Your task to perform on an android device: open a new tab in the chrome app Image 0: 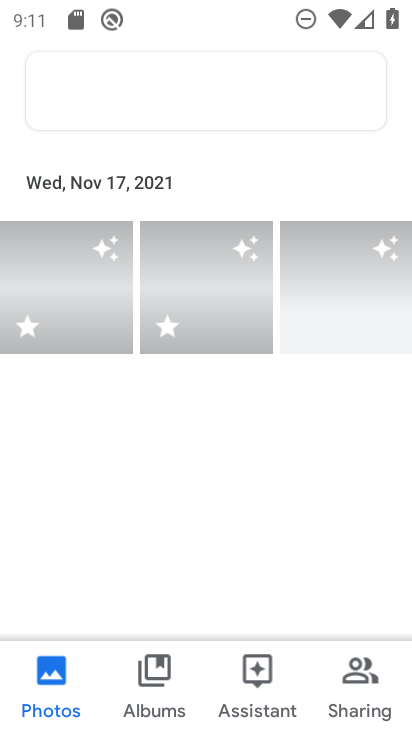
Step 0: press home button
Your task to perform on an android device: open a new tab in the chrome app Image 1: 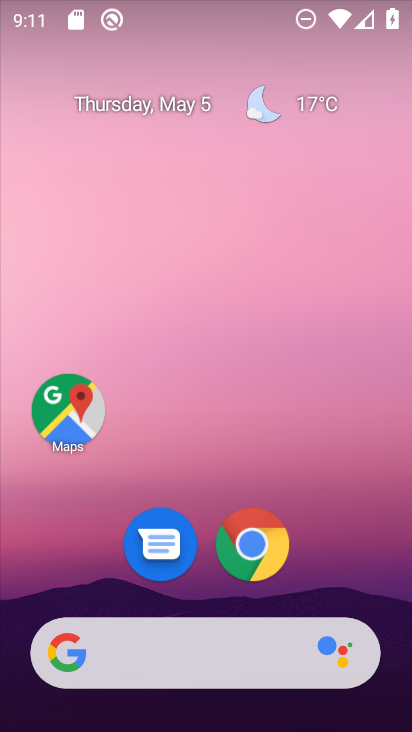
Step 1: drag from (394, 649) to (260, 71)
Your task to perform on an android device: open a new tab in the chrome app Image 2: 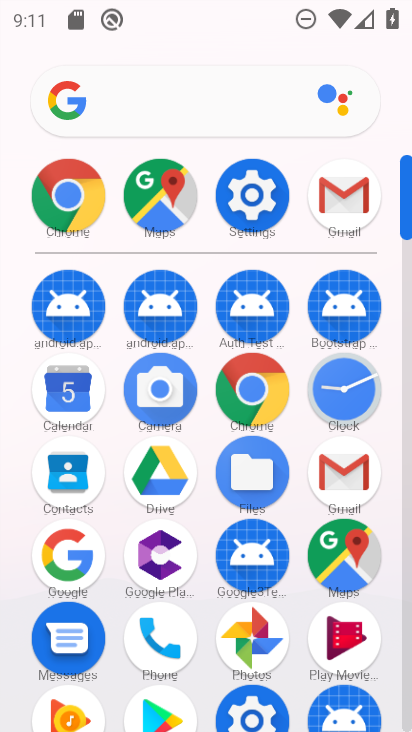
Step 2: click (42, 214)
Your task to perform on an android device: open a new tab in the chrome app Image 3: 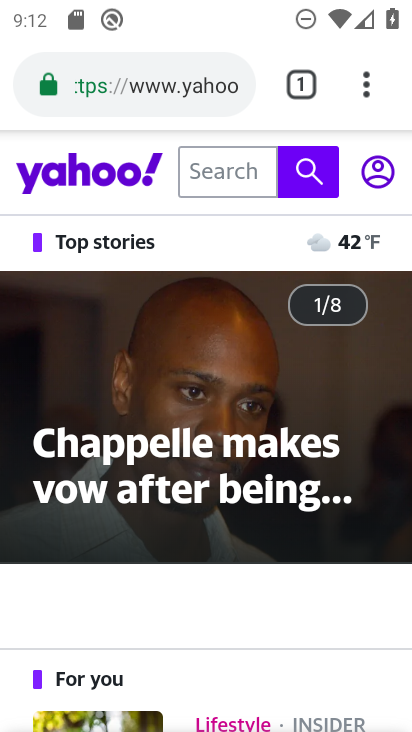
Step 3: press back button
Your task to perform on an android device: open a new tab in the chrome app Image 4: 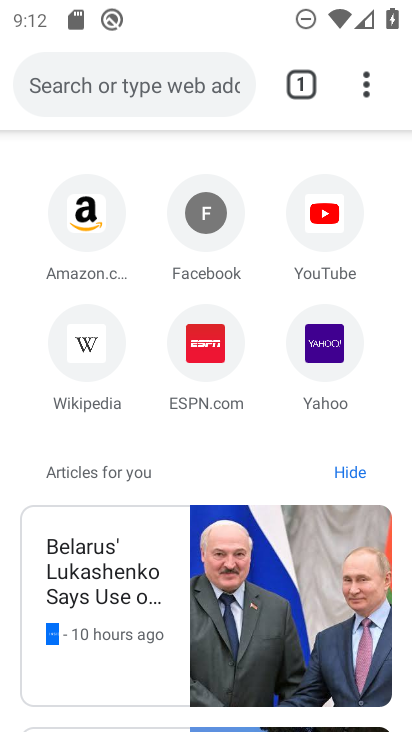
Step 4: click (365, 72)
Your task to perform on an android device: open a new tab in the chrome app Image 5: 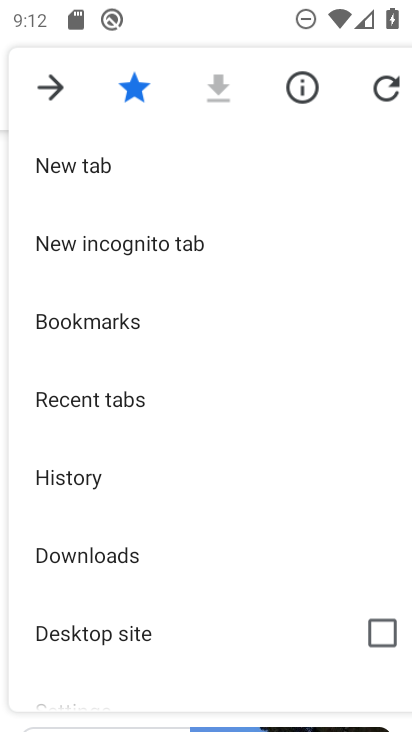
Step 5: click (150, 184)
Your task to perform on an android device: open a new tab in the chrome app Image 6: 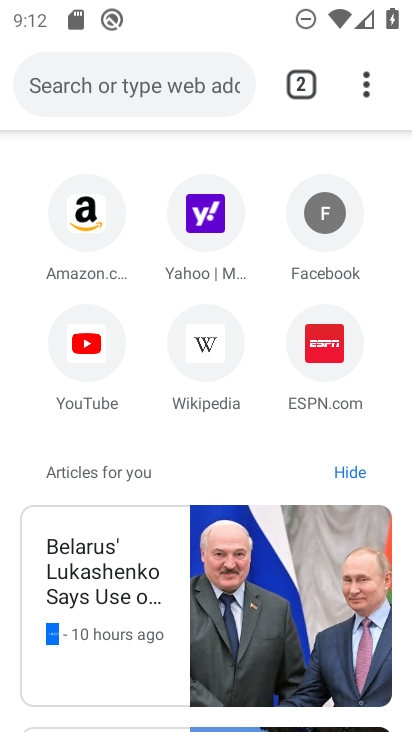
Step 6: task complete